Your task to perform on an android device: open app "Gmail" (install if not already installed) Image 0: 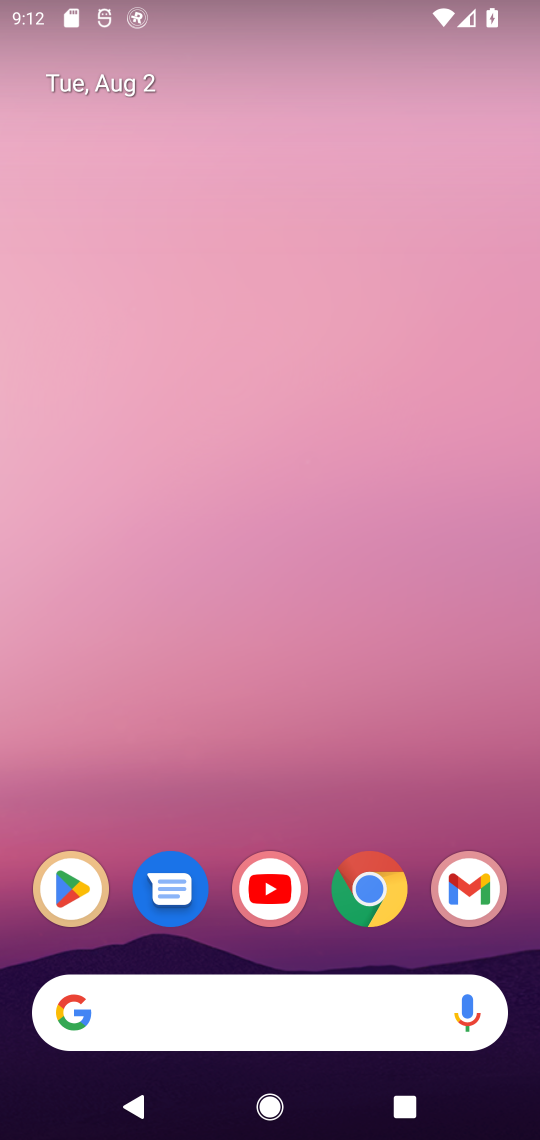
Step 0: press home button
Your task to perform on an android device: open app "Gmail" (install if not already installed) Image 1: 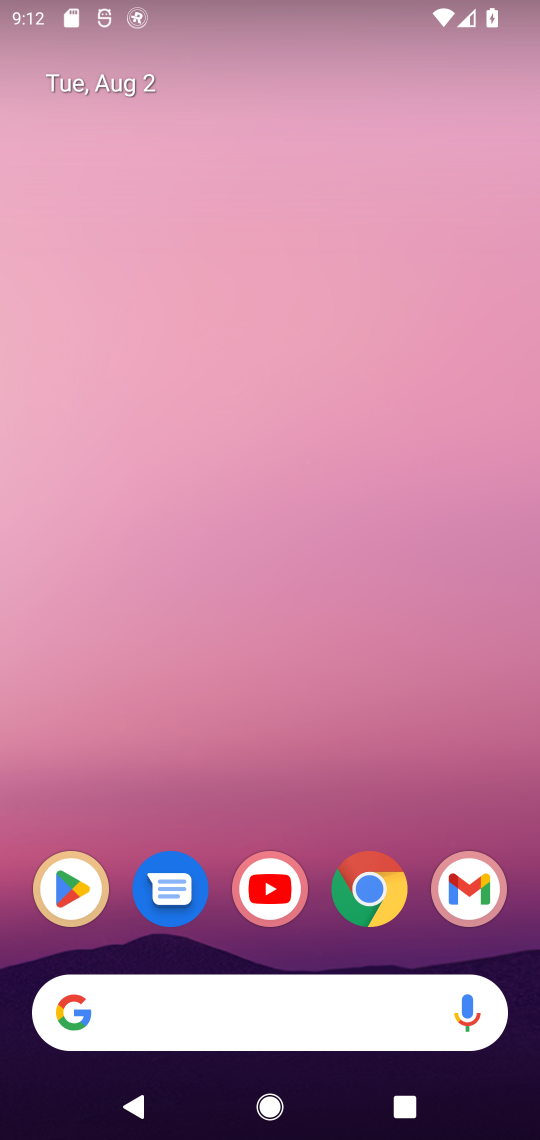
Step 1: click (82, 890)
Your task to perform on an android device: open app "Gmail" (install if not already installed) Image 2: 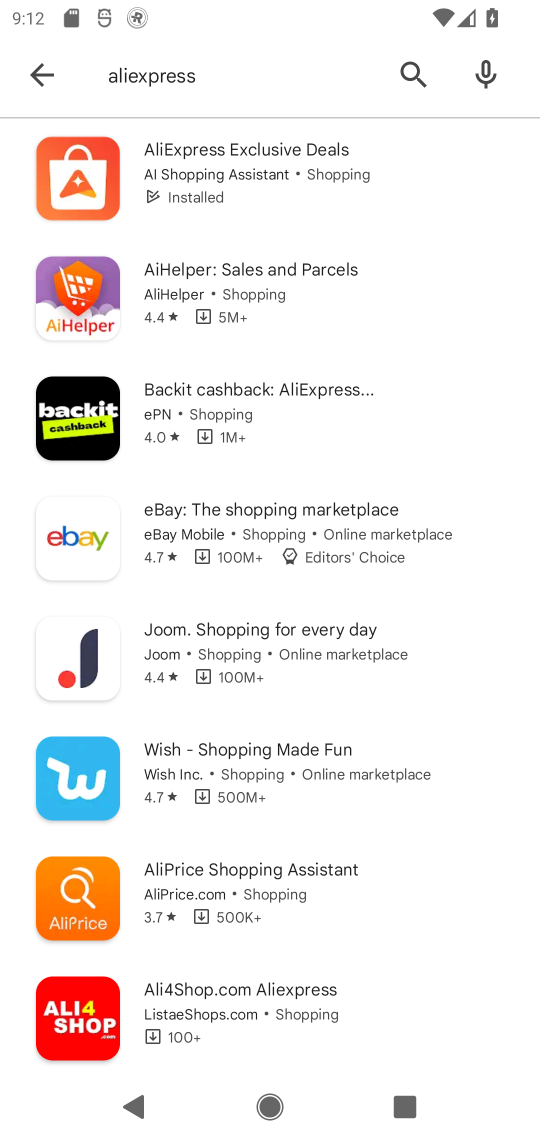
Step 2: click (402, 63)
Your task to perform on an android device: open app "Gmail" (install if not already installed) Image 3: 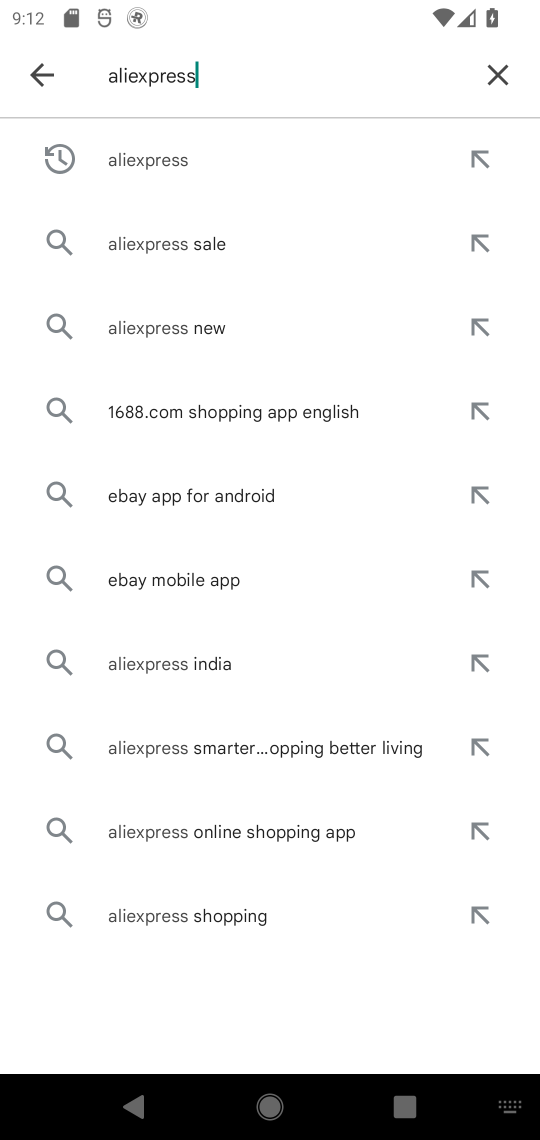
Step 3: click (494, 70)
Your task to perform on an android device: open app "Gmail" (install if not already installed) Image 4: 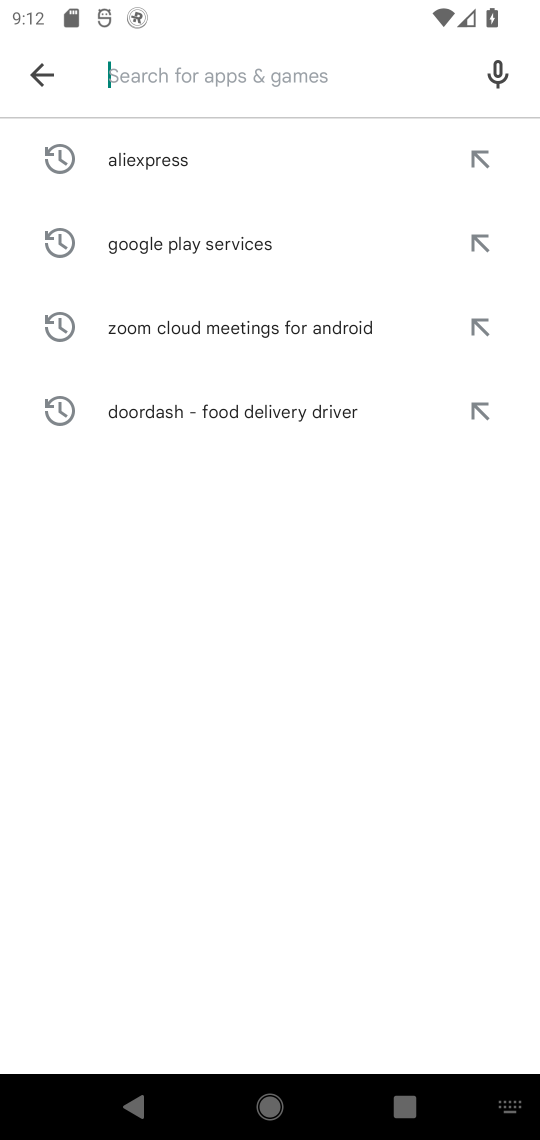
Step 4: type "Gmail"
Your task to perform on an android device: open app "Gmail" (install if not already installed) Image 5: 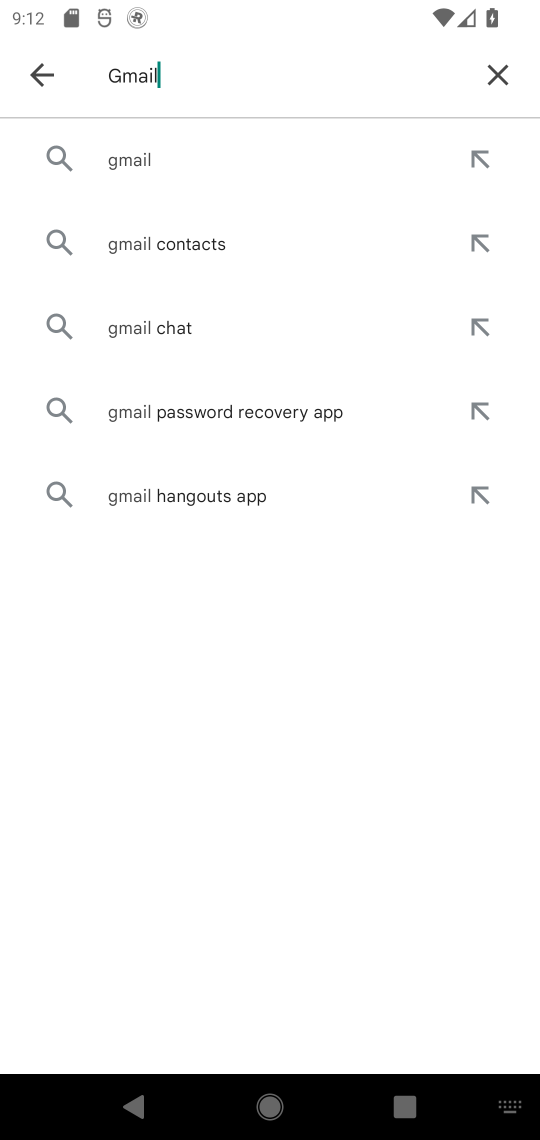
Step 5: click (179, 171)
Your task to perform on an android device: open app "Gmail" (install if not already installed) Image 6: 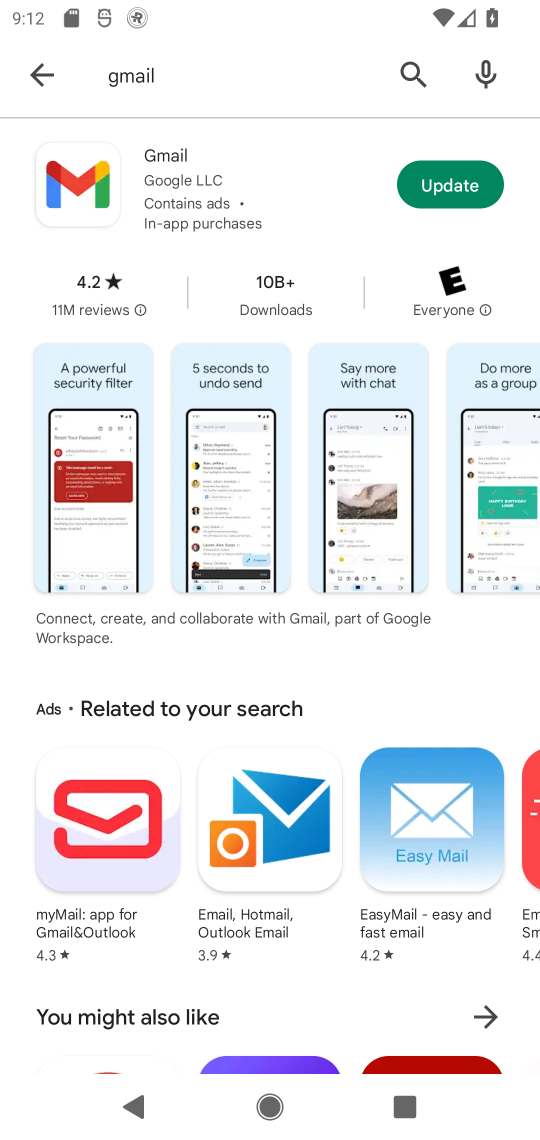
Step 6: click (155, 194)
Your task to perform on an android device: open app "Gmail" (install if not already installed) Image 7: 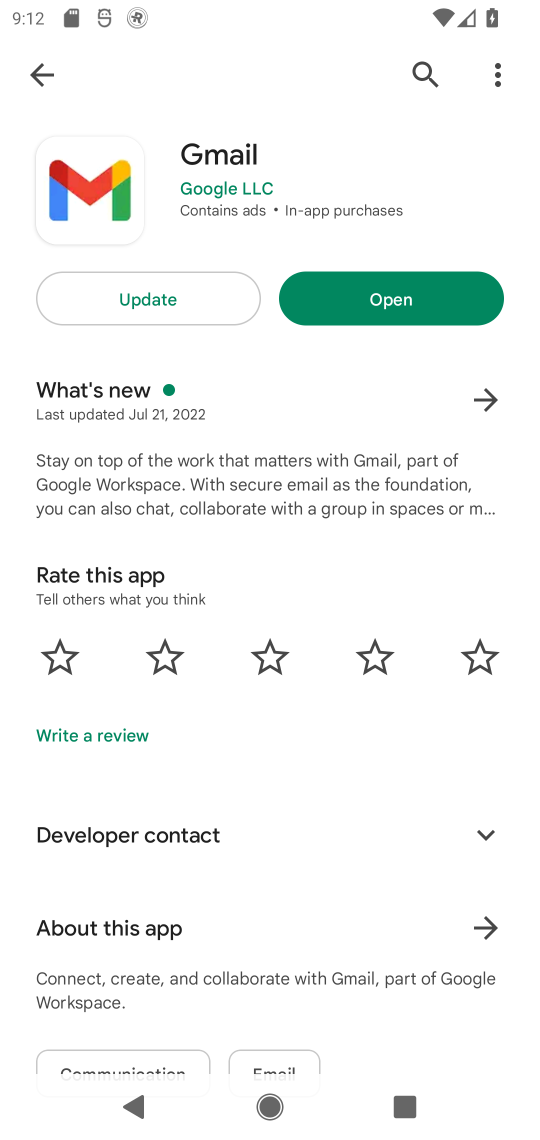
Step 7: click (393, 297)
Your task to perform on an android device: open app "Gmail" (install if not already installed) Image 8: 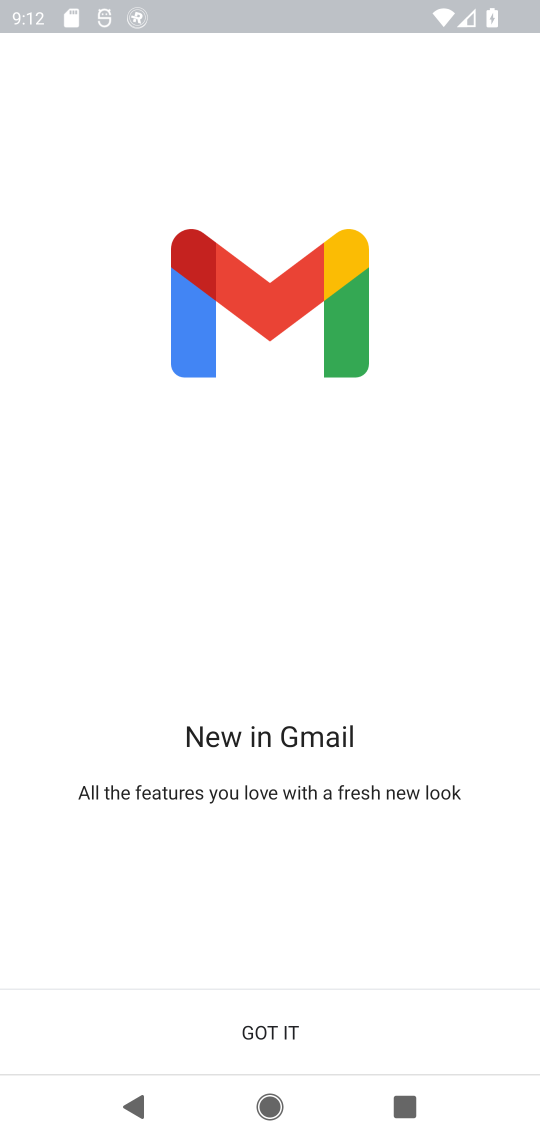
Step 8: task complete